Your task to perform on an android device: Open ESPN.com Image 0: 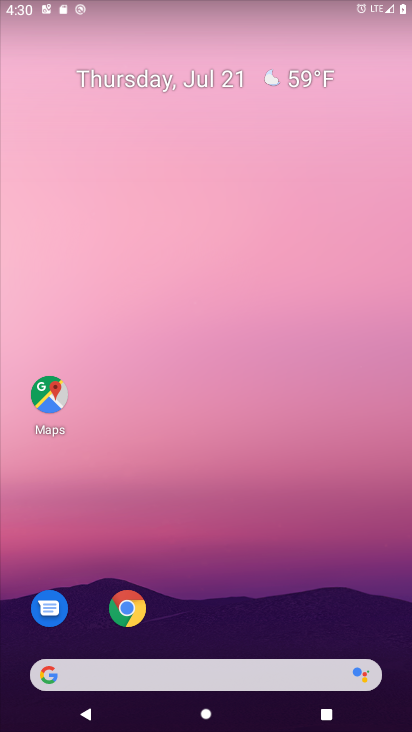
Step 0: drag from (260, 665) to (341, 74)
Your task to perform on an android device: Open ESPN.com Image 1: 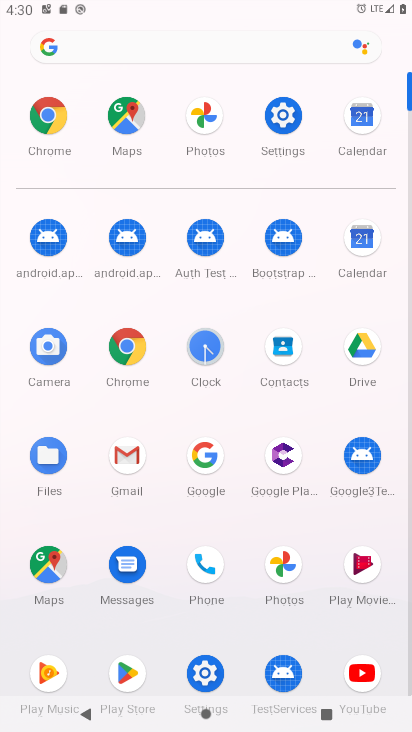
Step 1: click (133, 348)
Your task to perform on an android device: Open ESPN.com Image 2: 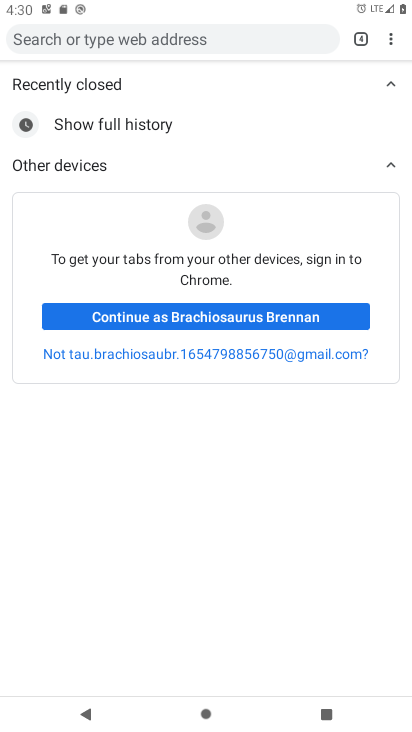
Step 2: click (300, 33)
Your task to perform on an android device: Open ESPN.com Image 3: 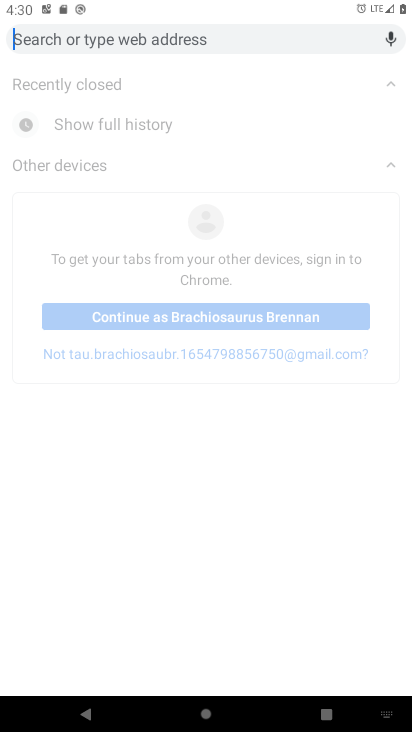
Step 3: type "espn.com"
Your task to perform on an android device: Open ESPN.com Image 4: 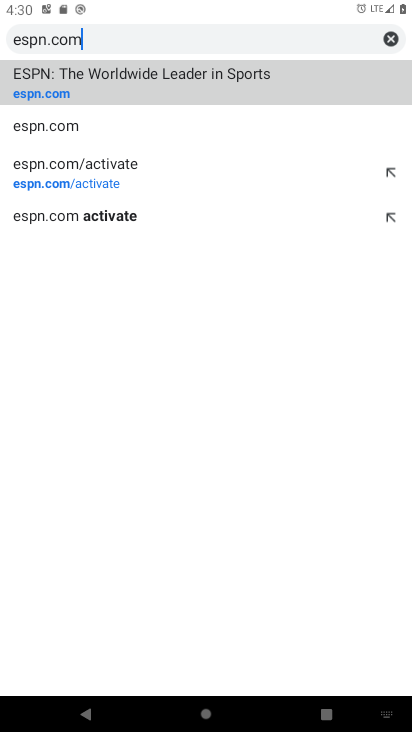
Step 4: click (271, 85)
Your task to perform on an android device: Open ESPN.com Image 5: 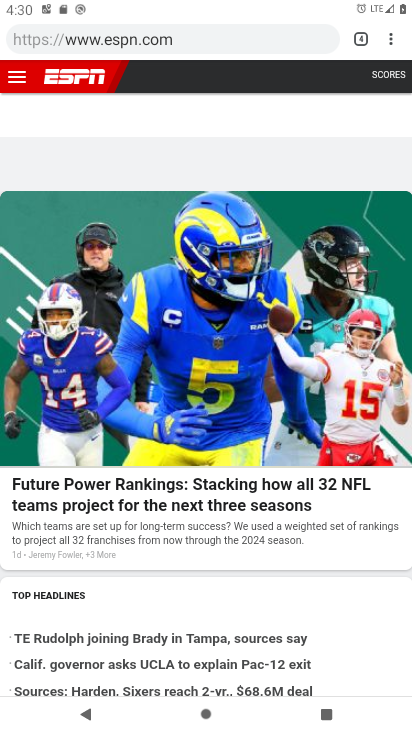
Step 5: task complete